Your task to perform on an android device: remove spam from my inbox in the gmail app Image 0: 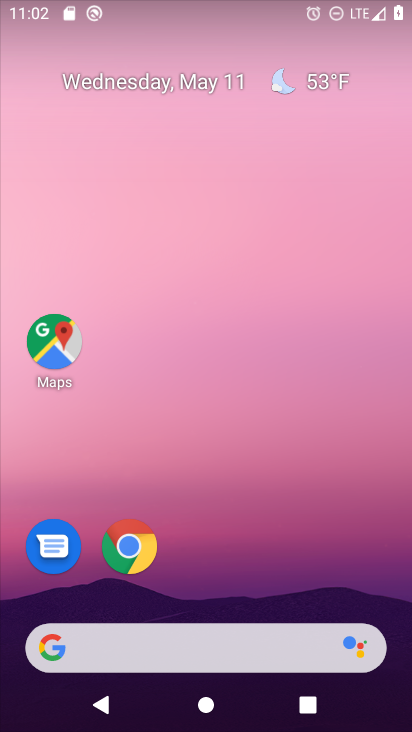
Step 0: drag from (391, 595) to (211, 7)
Your task to perform on an android device: remove spam from my inbox in the gmail app Image 1: 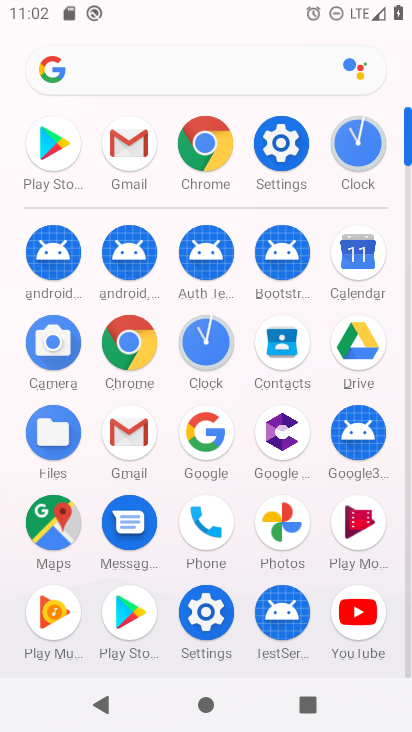
Step 1: click (142, 447)
Your task to perform on an android device: remove spam from my inbox in the gmail app Image 2: 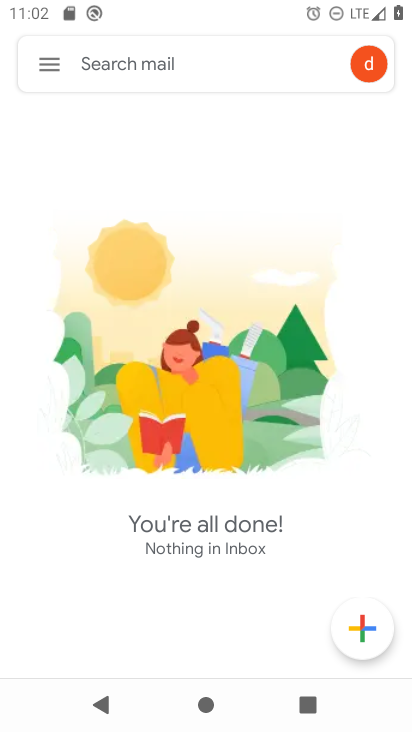
Step 2: click (46, 62)
Your task to perform on an android device: remove spam from my inbox in the gmail app Image 3: 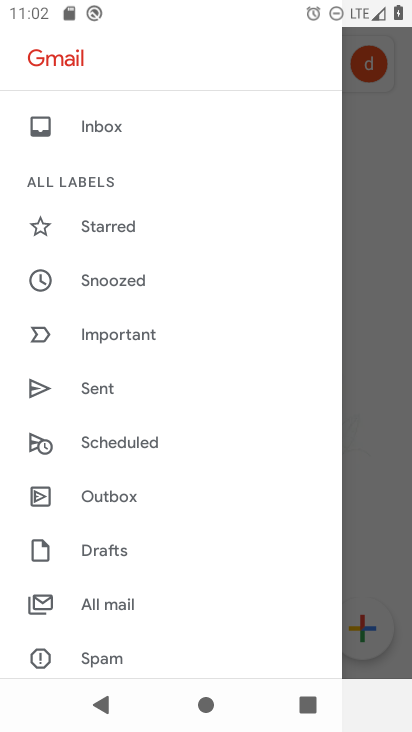
Step 3: click (138, 658)
Your task to perform on an android device: remove spam from my inbox in the gmail app Image 4: 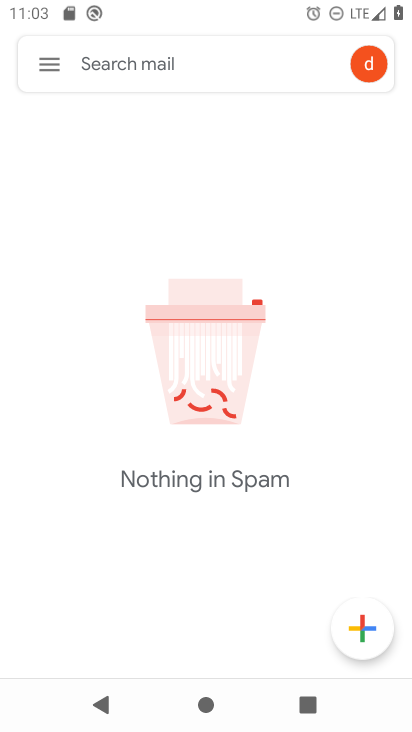
Step 4: click (56, 55)
Your task to perform on an android device: remove spam from my inbox in the gmail app Image 5: 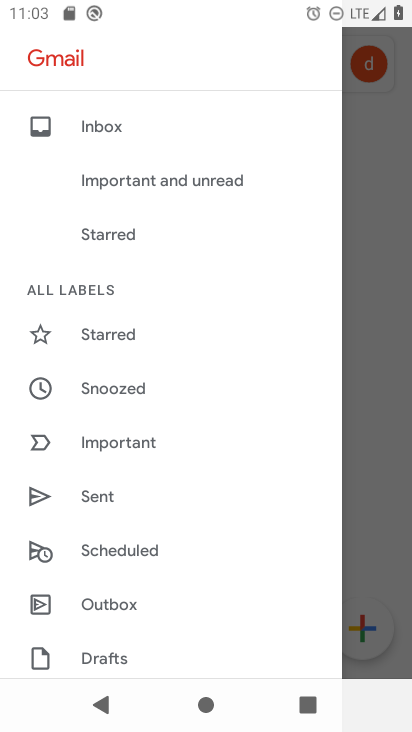
Step 5: drag from (106, 554) to (139, 212)
Your task to perform on an android device: remove spam from my inbox in the gmail app Image 6: 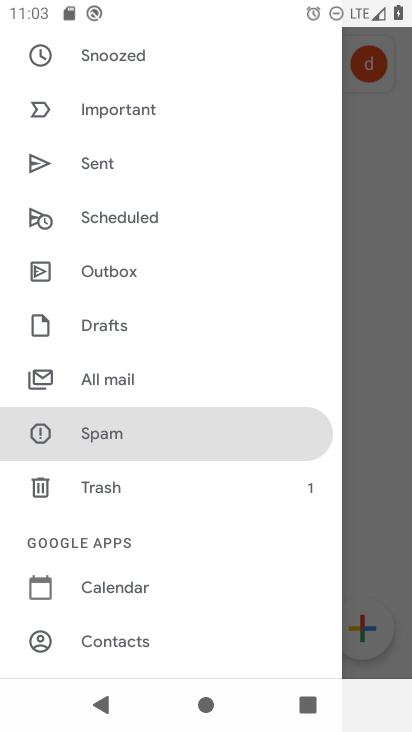
Step 6: click (147, 425)
Your task to perform on an android device: remove spam from my inbox in the gmail app Image 7: 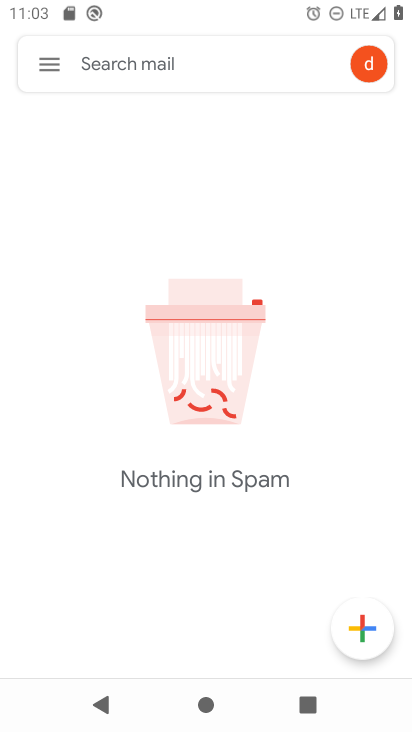
Step 7: task complete